Your task to perform on an android device: Do I have any events tomorrow? Image 0: 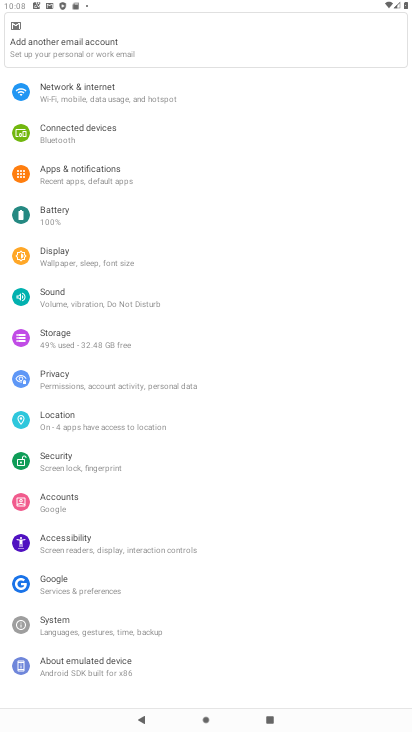
Step 0: press home button
Your task to perform on an android device: Do I have any events tomorrow? Image 1: 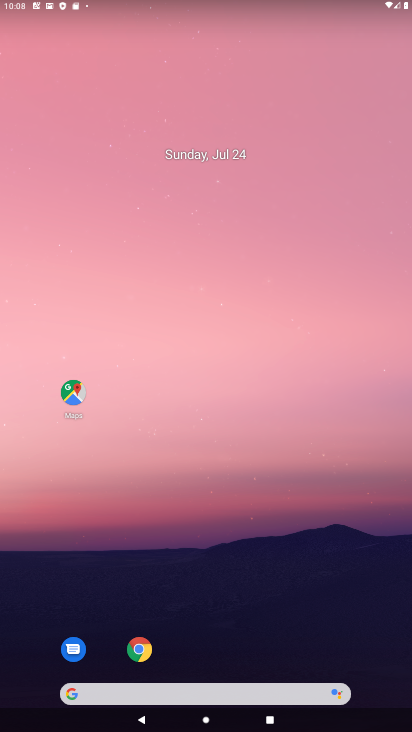
Step 1: drag from (193, 599) to (225, 181)
Your task to perform on an android device: Do I have any events tomorrow? Image 2: 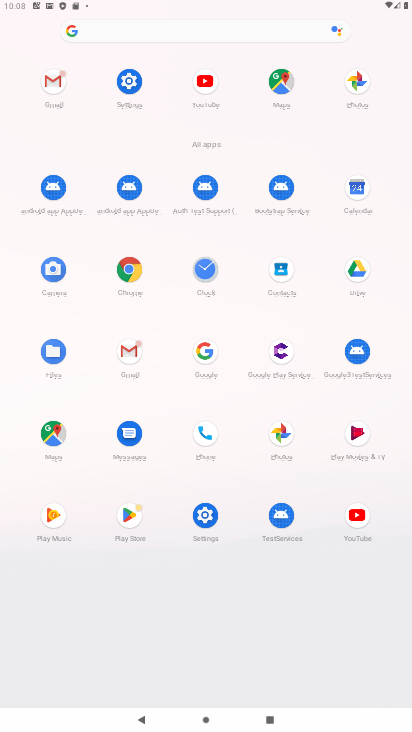
Step 2: click (361, 204)
Your task to perform on an android device: Do I have any events tomorrow? Image 3: 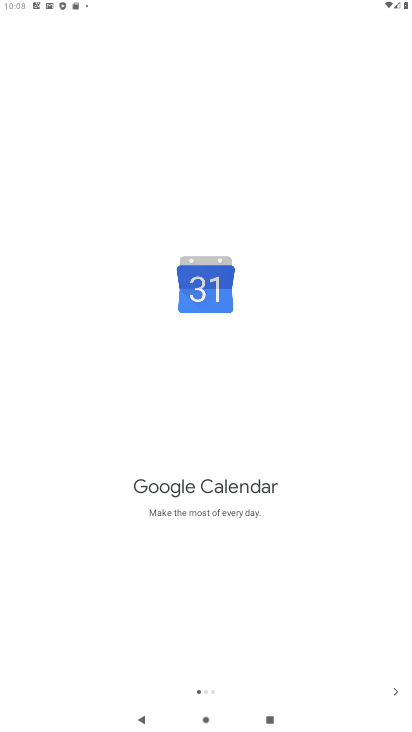
Step 3: click (389, 697)
Your task to perform on an android device: Do I have any events tomorrow? Image 4: 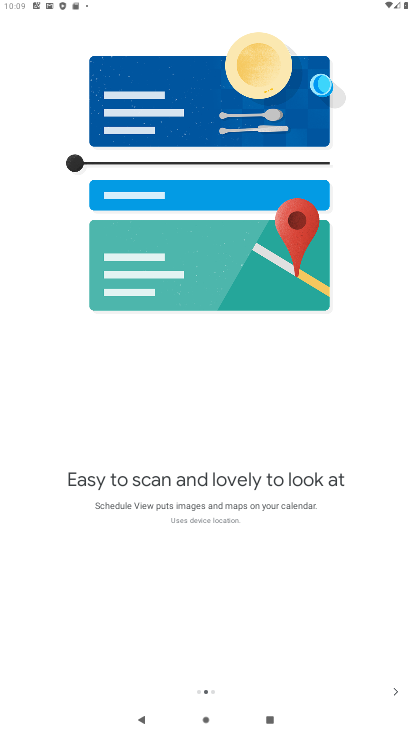
Step 4: click (398, 681)
Your task to perform on an android device: Do I have any events tomorrow? Image 5: 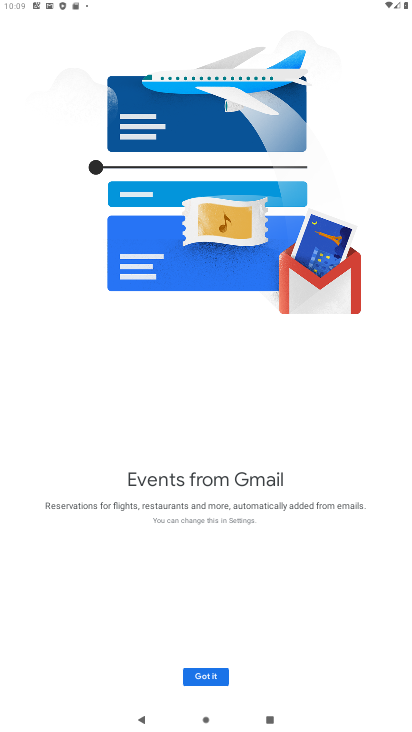
Step 5: click (210, 670)
Your task to perform on an android device: Do I have any events tomorrow? Image 6: 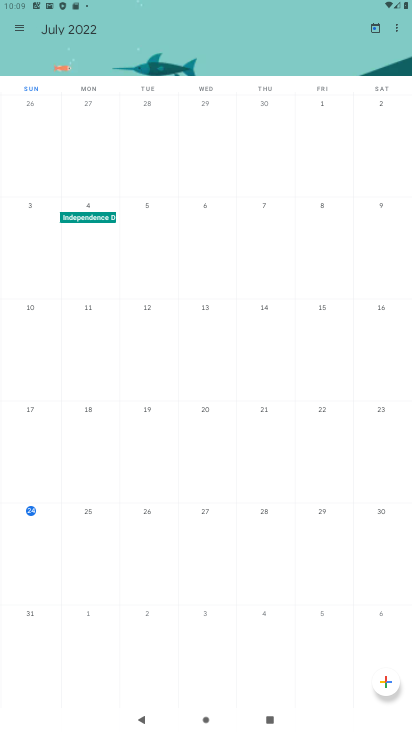
Step 6: click (93, 509)
Your task to perform on an android device: Do I have any events tomorrow? Image 7: 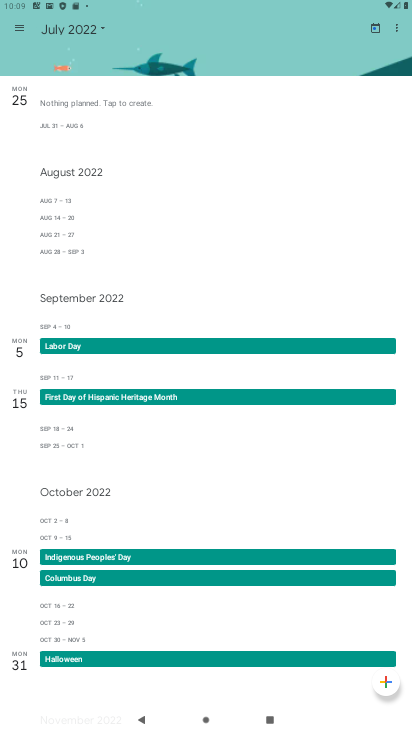
Step 7: task complete